Your task to perform on an android device: Go to Yahoo.com Image 0: 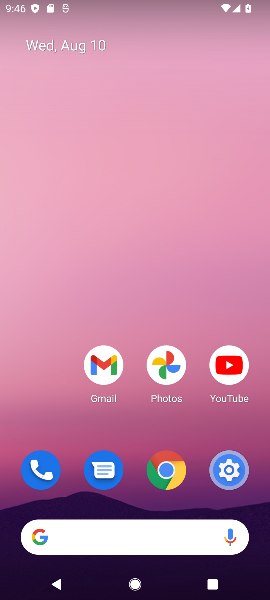
Step 0: click (165, 464)
Your task to perform on an android device: Go to Yahoo.com Image 1: 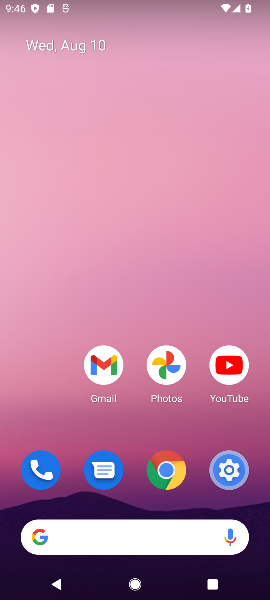
Step 1: click (161, 470)
Your task to perform on an android device: Go to Yahoo.com Image 2: 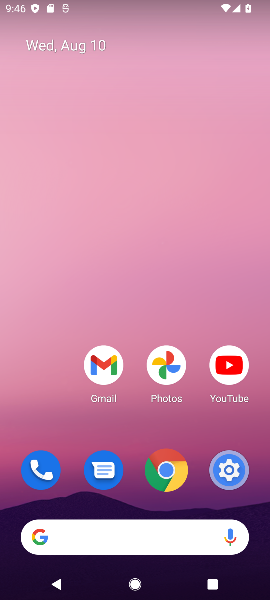
Step 2: click (161, 470)
Your task to perform on an android device: Go to Yahoo.com Image 3: 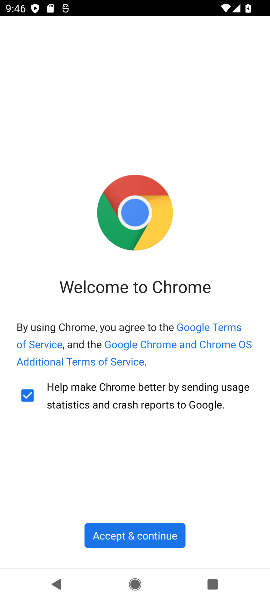
Step 3: click (169, 535)
Your task to perform on an android device: Go to Yahoo.com Image 4: 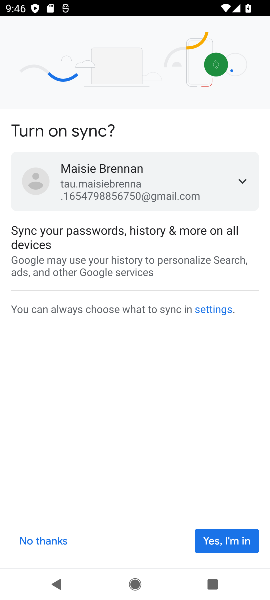
Step 4: click (230, 531)
Your task to perform on an android device: Go to Yahoo.com Image 5: 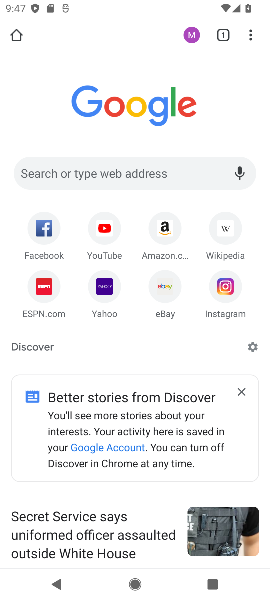
Step 5: click (96, 294)
Your task to perform on an android device: Go to Yahoo.com Image 6: 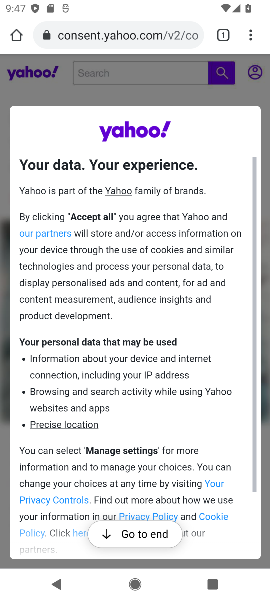
Step 6: task complete